Your task to perform on an android device: Open calendar and show me the first week of next month Image 0: 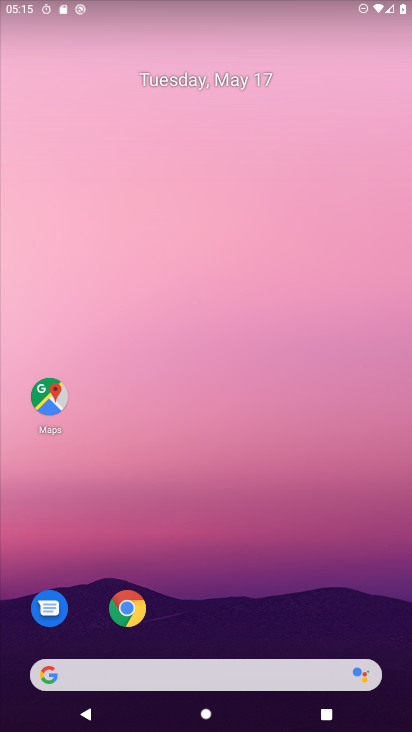
Step 0: drag from (255, 650) to (296, 343)
Your task to perform on an android device: Open calendar and show me the first week of next month Image 1: 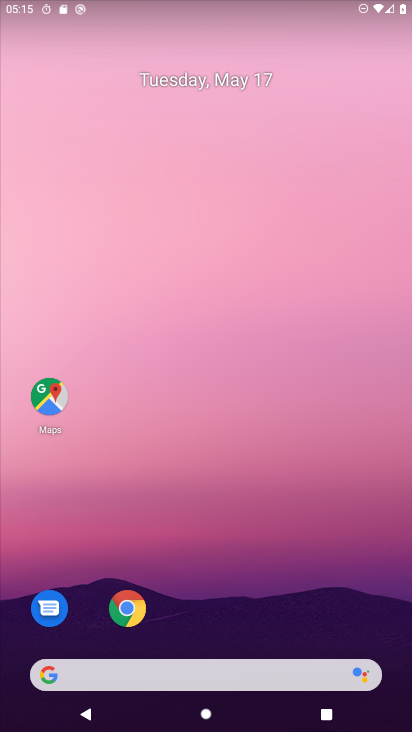
Step 1: drag from (235, 658) to (243, 213)
Your task to perform on an android device: Open calendar and show me the first week of next month Image 2: 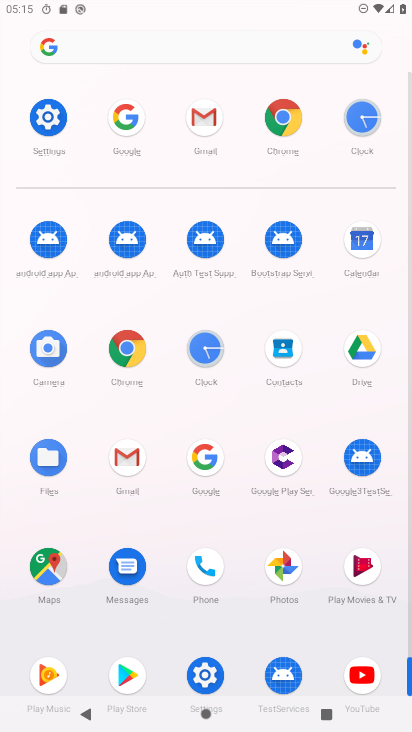
Step 2: click (374, 252)
Your task to perform on an android device: Open calendar and show me the first week of next month Image 3: 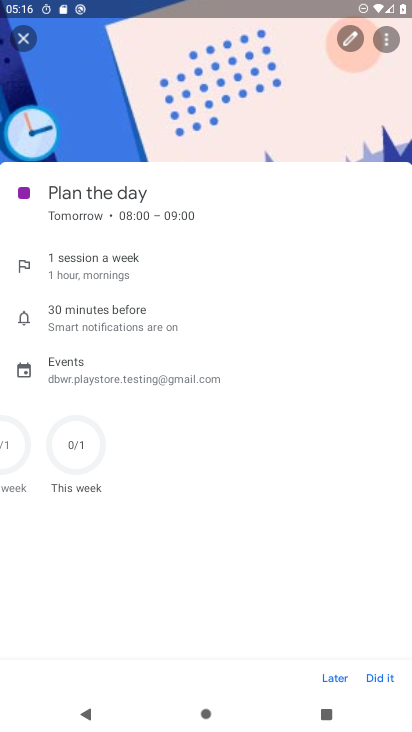
Step 3: click (27, 30)
Your task to perform on an android device: Open calendar and show me the first week of next month Image 4: 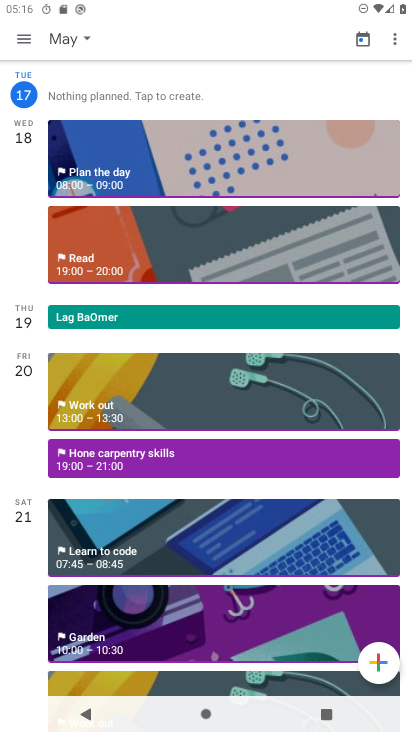
Step 4: click (75, 36)
Your task to perform on an android device: Open calendar and show me the first week of next month Image 5: 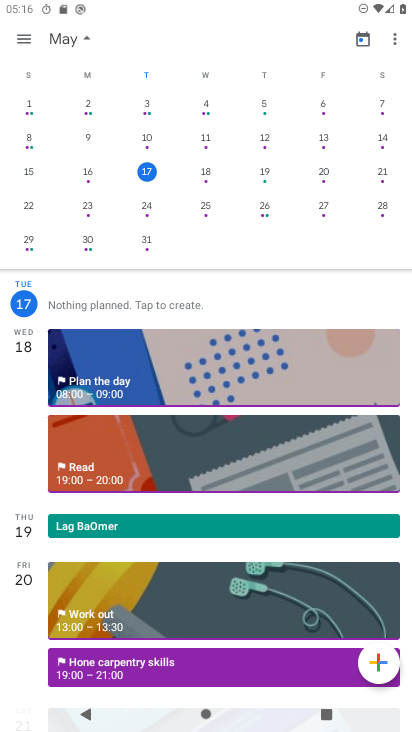
Step 5: drag from (342, 210) to (0, 183)
Your task to perform on an android device: Open calendar and show me the first week of next month Image 6: 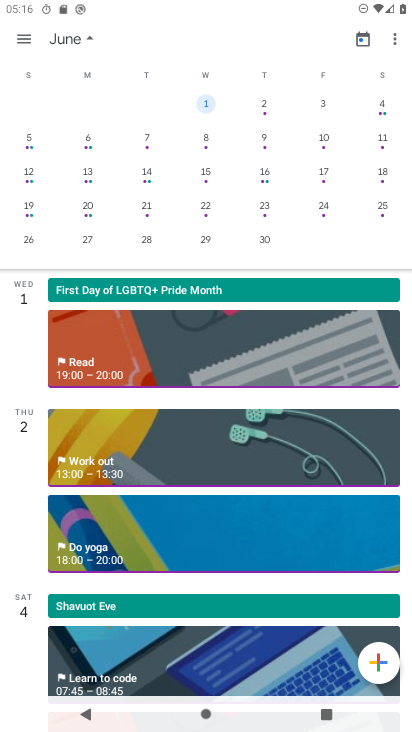
Step 6: click (209, 101)
Your task to perform on an android device: Open calendar and show me the first week of next month Image 7: 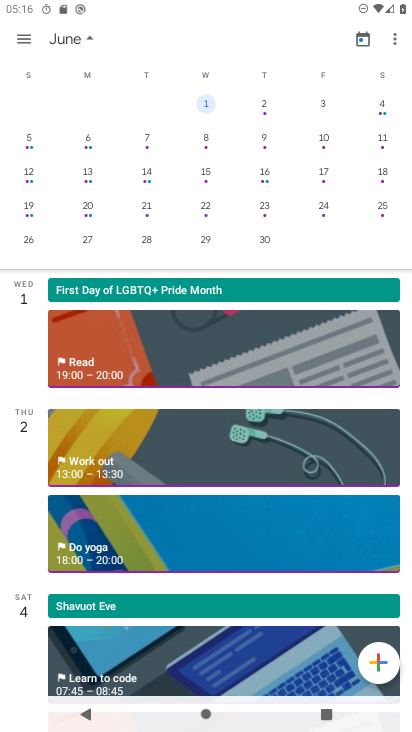
Step 7: task complete